Your task to perform on an android device: open a bookmark in the chrome app Image 0: 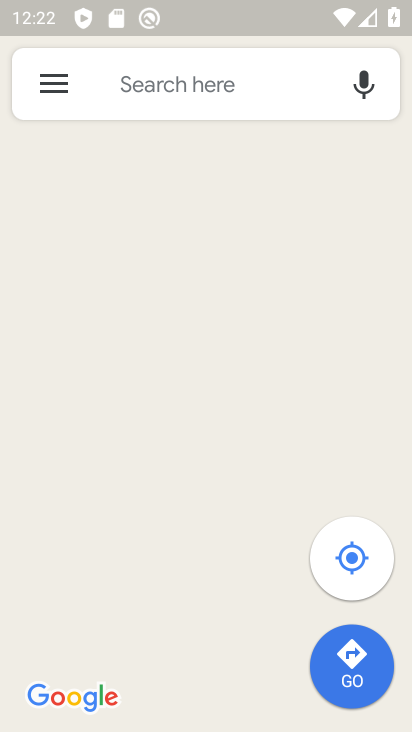
Step 0: press back button
Your task to perform on an android device: open a bookmark in the chrome app Image 1: 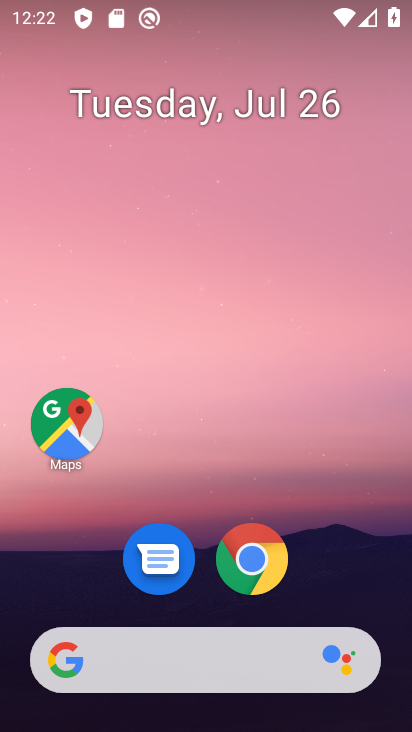
Step 1: click (261, 583)
Your task to perform on an android device: open a bookmark in the chrome app Image 2: 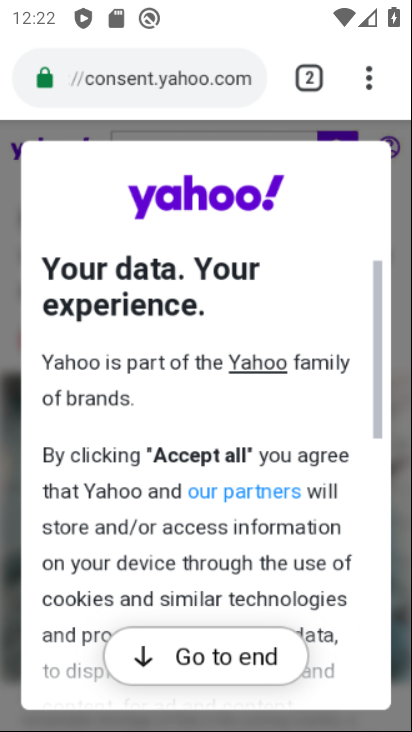
Step 2: click (377, 70)
Your task to perform on an android device: open a bookmark in the chrome app Image 3: 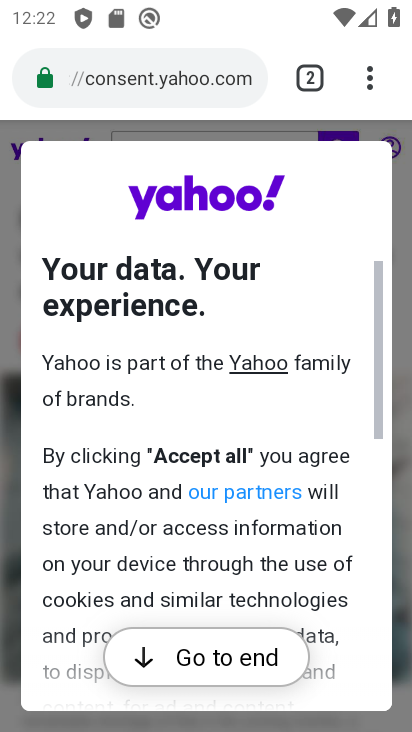
Step 3: drag from (370, 72) to (107, 294)
Your task to perform on an android device: open a bookmark in the chrome app Image 4: 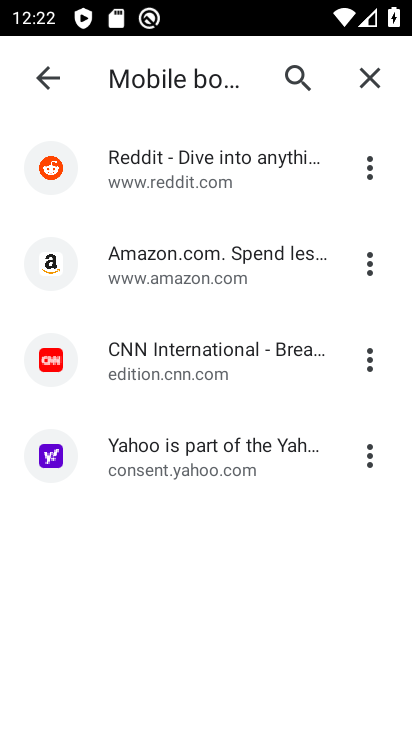
Step 4: click (172, 255)
Your task to perform on an android device: open a bookmark in the chrome app Image 5: 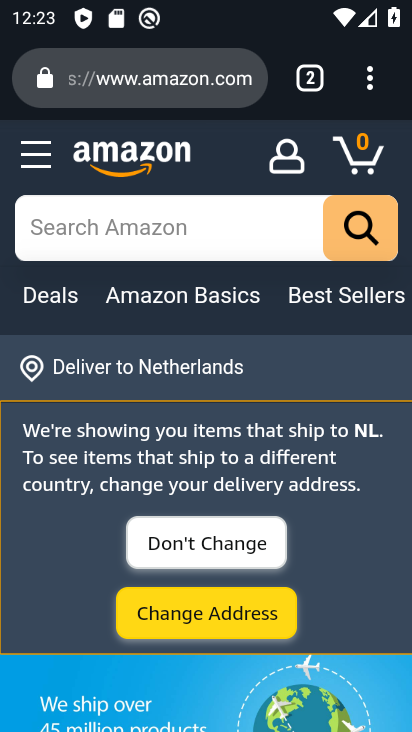
Step 5: task complete